Your task to perform on an android device: see sites visited before in the chrome app Image 0: 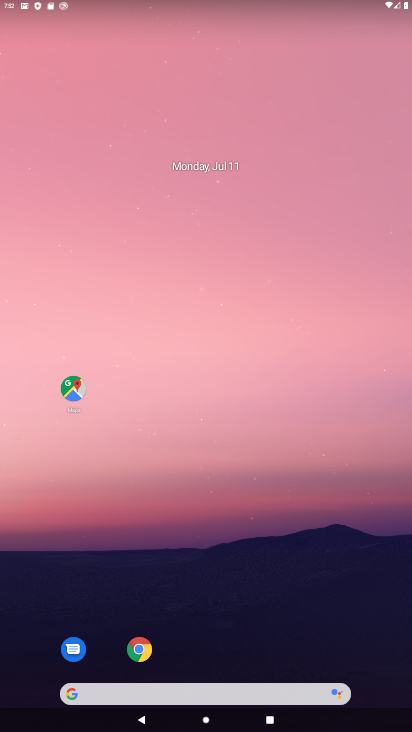
Step 0: click (137, 650)
Your task to perform on an android device: see sites visited before in the chrome app Image 1: 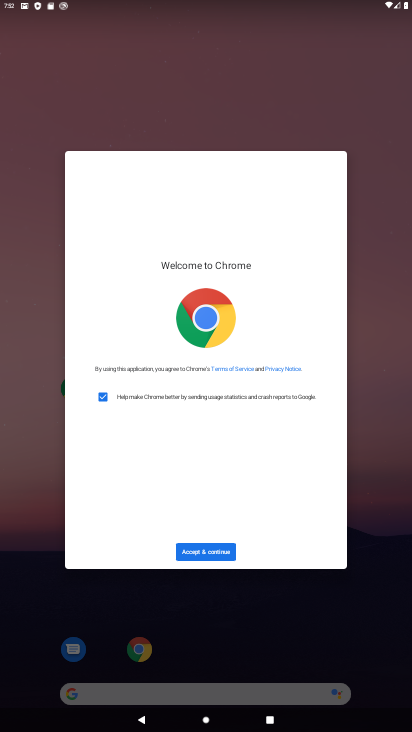
Step 1: click (212, 547)
Your task to perform on an android device: see sites visited before in the chrome app Image 2: 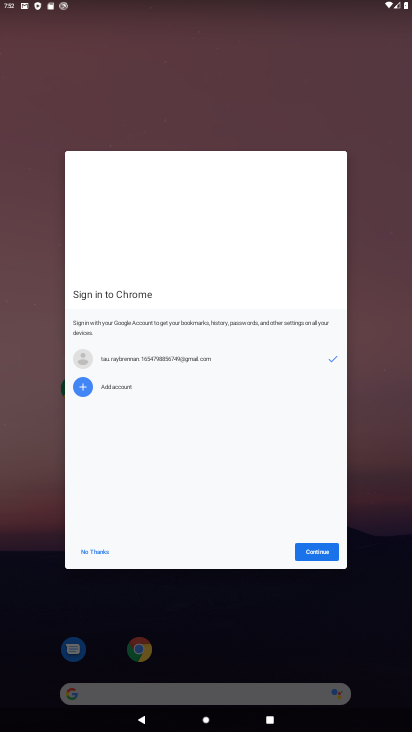
Step 2: click (330, 543)
Your task to perform on an android device: see sites visited before in the chrome app Image 3: 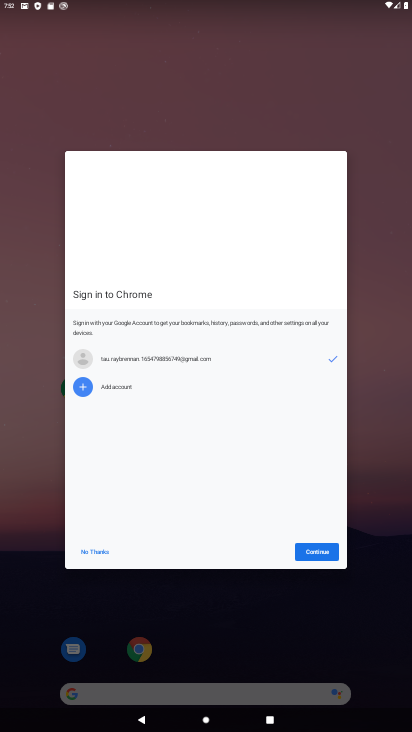
Step 3: click (323, 548)
Your task to perform on an android device: see sites visited before in the chrome app Image 4: 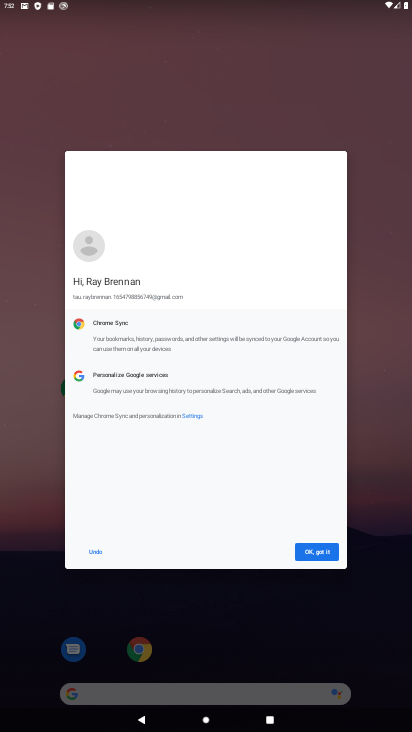
Step 4: click (323, 548)
Your task to perform on an android device: see sites visited before in the chrome app Image 5: 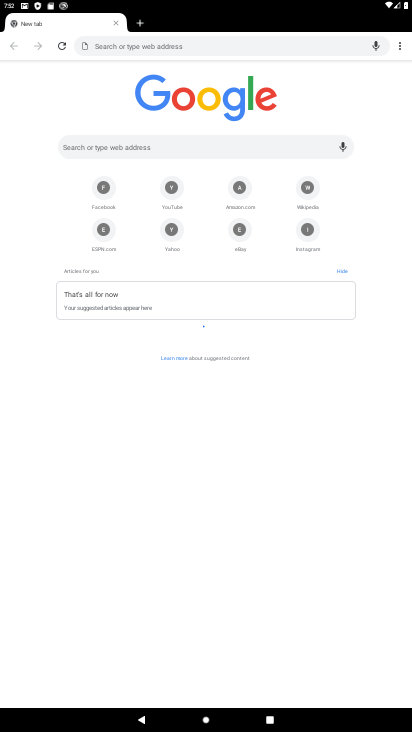
Step 5: click (398, 45)
Your task to perform on an android device: see sites visited before in the chrome app Image 6: 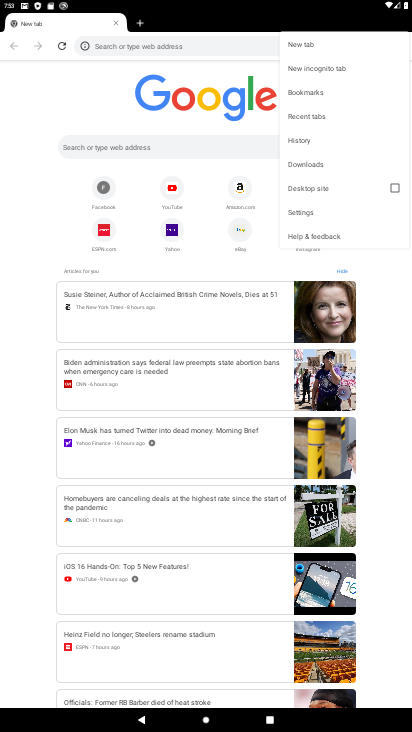
Step 6: click (312, 140)
Your task to perform on an android device: see sites visited before in the chrome app Image 7: 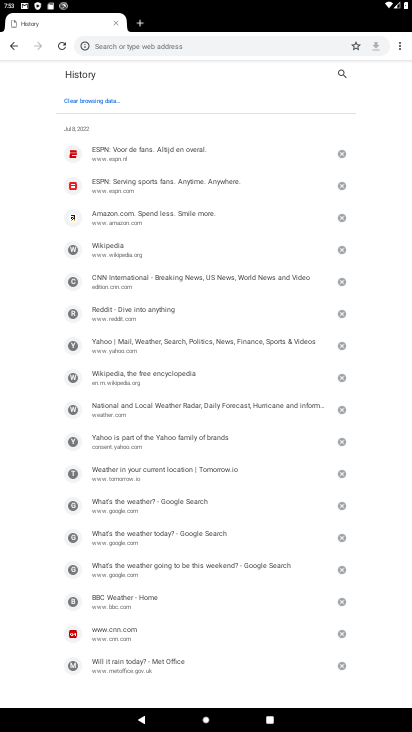
Step 7: task complete